Your task to perform on an android device: Open wifi settings Image 0: 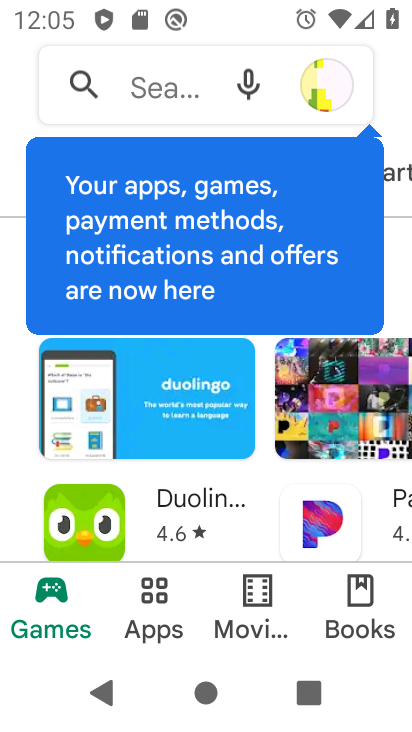
Step 0: press home button
Your task to perform on an android device: Open wifi settings Image 1: 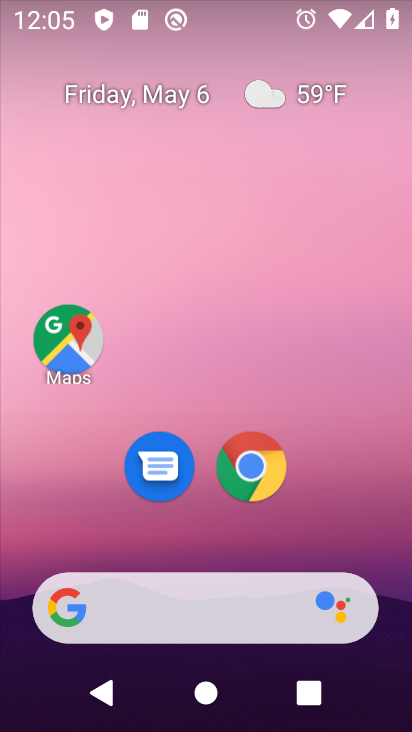
Step 1: drag from (176, 528) to (254, 178)
Your task to perform on an android device: Open wifi settings Image 2: 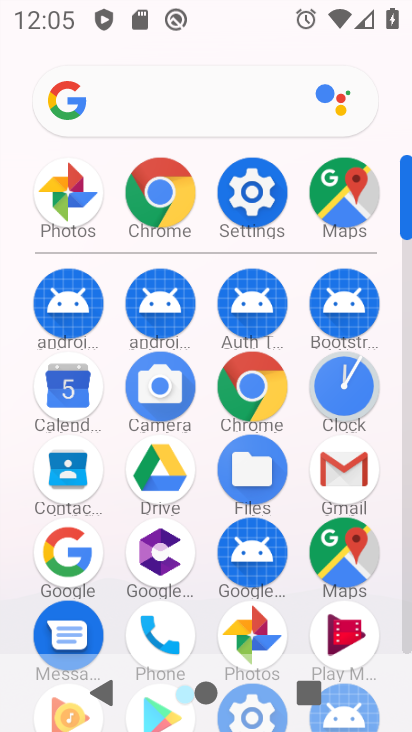
Step 2: click (260, 189)
Your task to perform on an android device: Open wifi settings Image 3: 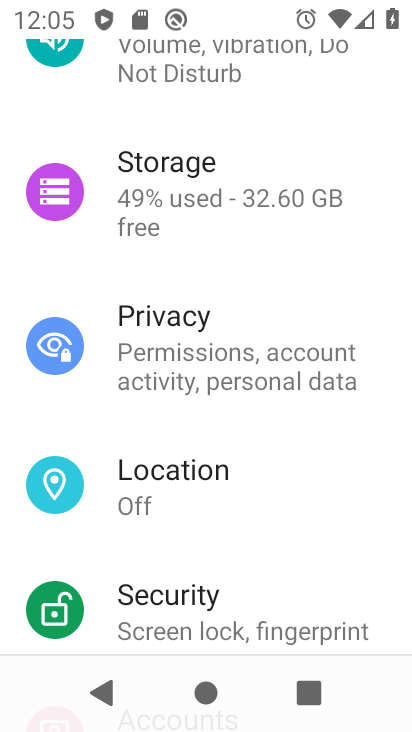
Step 3: drag from (255, 157) to (242, 627)
Your task to perform on an android device: Open wifi settings Image 4: 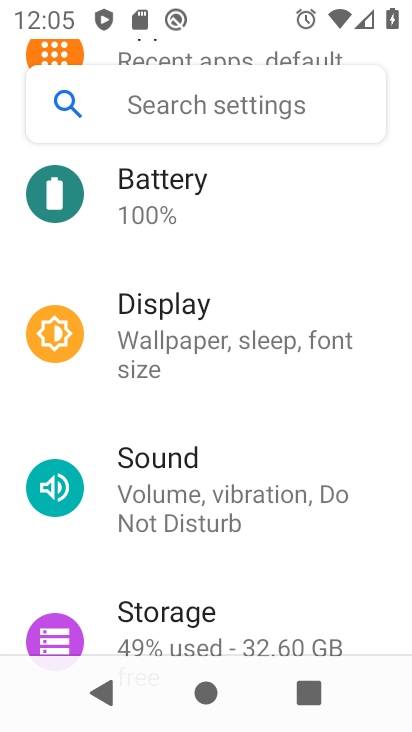
Step 4: drag from (241, 228) to (191, 522)
Your task to perform on an android device: Open wifi settings Image 5: 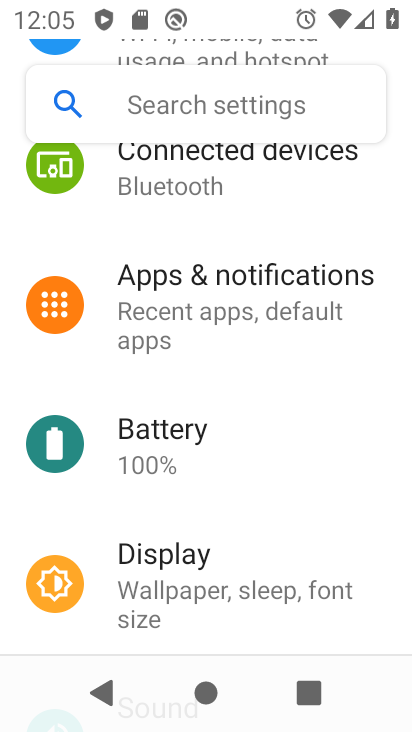
Step 5: drag from (261, 210) to (253, 523)
Your task to perform on an android device: Open wifi settings Image 6: 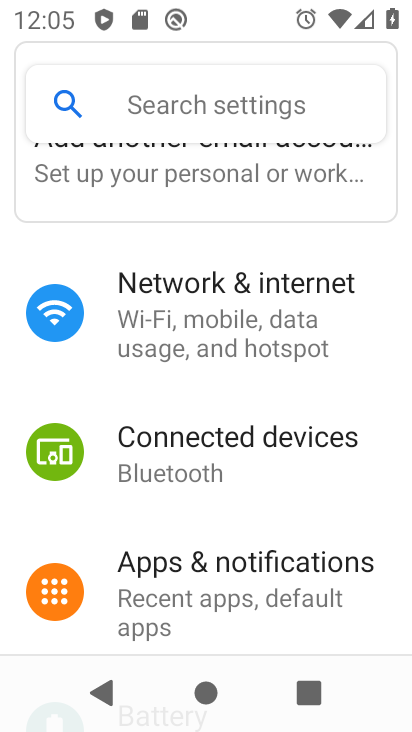
Step 6: click (283, 345)
Your task to perform on an android device: Open wifi settings Image 7: 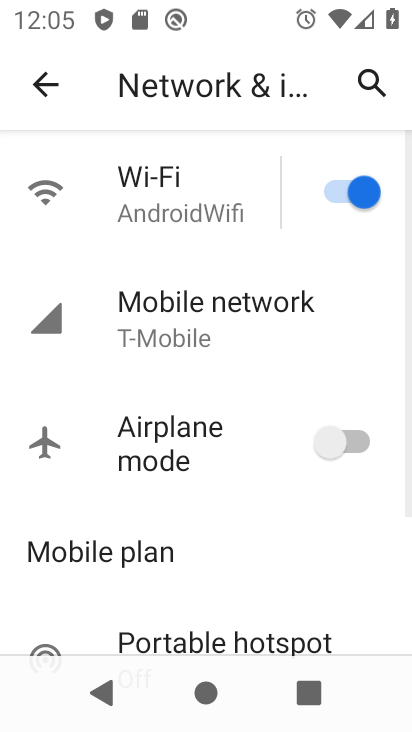
Step 7: click (182, 178)
Your task to perform on an android device: Open wifi settings Image 8: 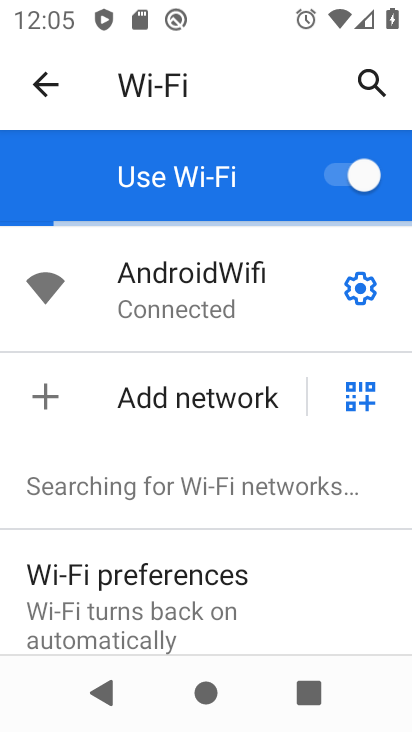
Step 8: task complete